Your task to perform on an android device: turn notification dots on Image 0: 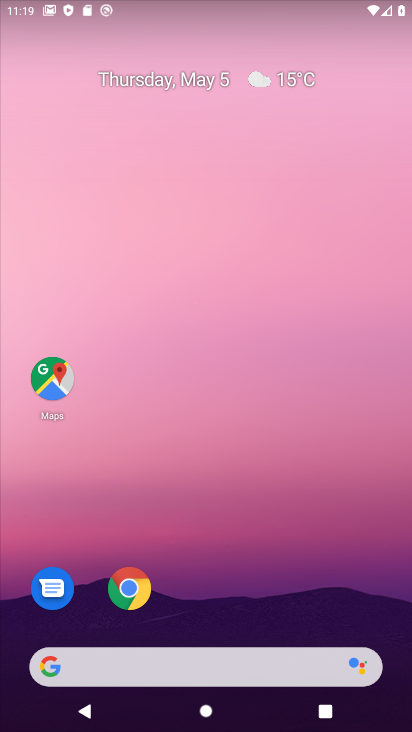
Step 0: drag from (309, 497) to (342, 90)
Your task to perform on an android device: turn notification dots on Image 1: 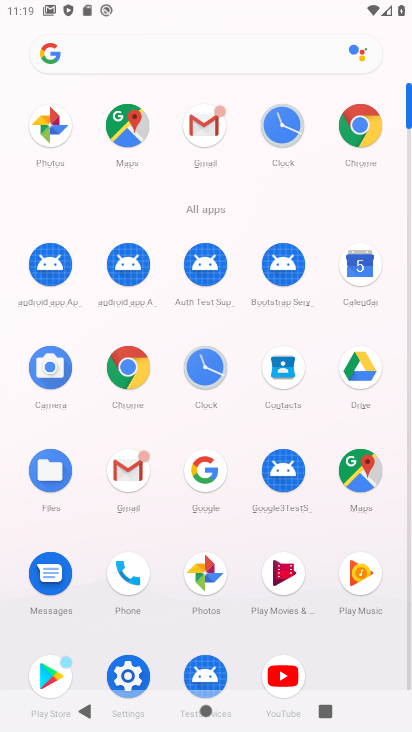
Step 1: click (138, 667)
Your task to perform on an android device: turn notification dots on Image 2: 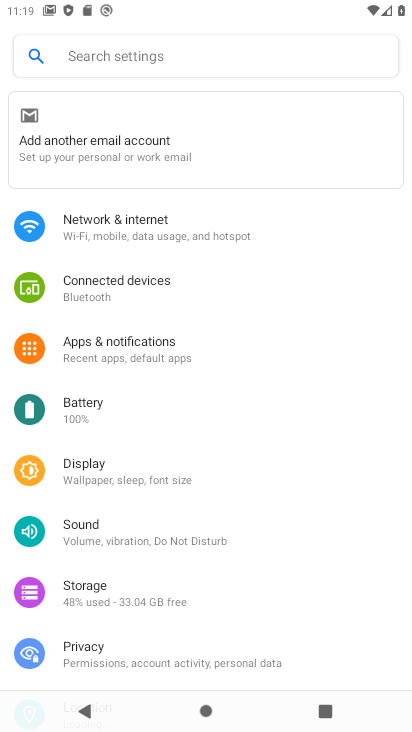
Step 2: click (118, 359)
Your task to perform on an android device: turn notification dots on Image 3: 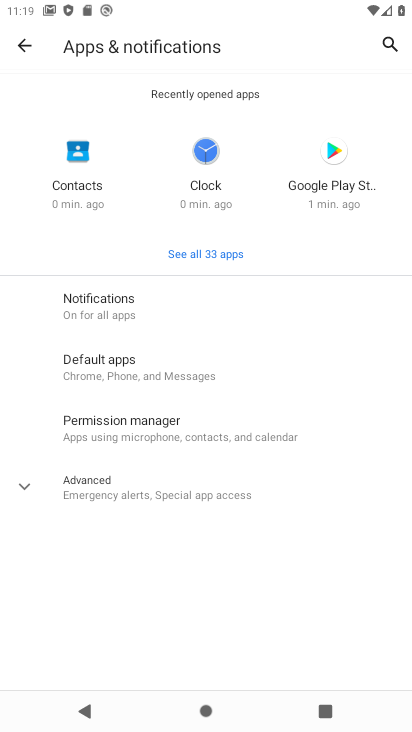
Step 3: click (116, 304)
Your task to perform on an android device: turn notification dots on Image 4: 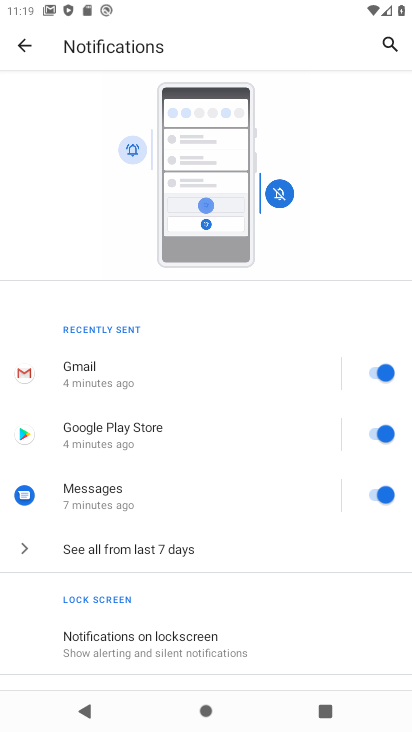
Step 4: drag from (238, 609) to (250, 182)
Your task to perform on an android device: turn notification dots on Image 5: 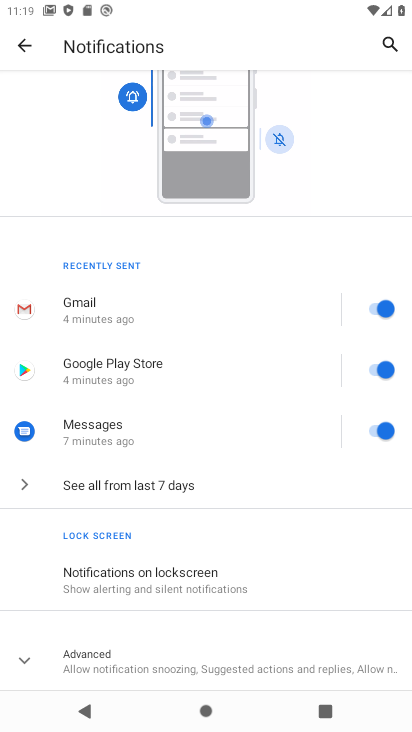
Step 5: click (22, 665)
Your task to perform on an android device: turn notification dots on Image 6: 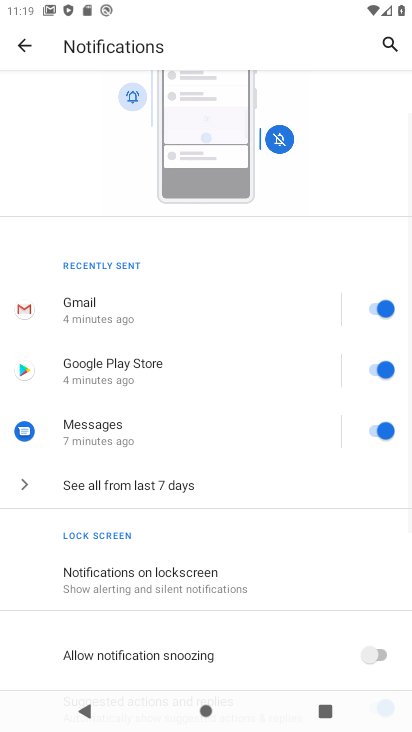
Step 6: task complete